Your task to perform on an android device: toggle sleep mode Image 0: 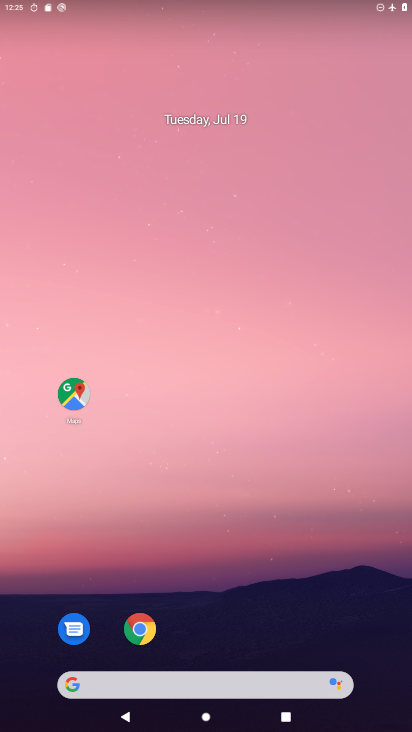
Step 0: drag from (319, 613) to (326, 97)
Your task to perform on an android device: toggle sleep mode Image 1: 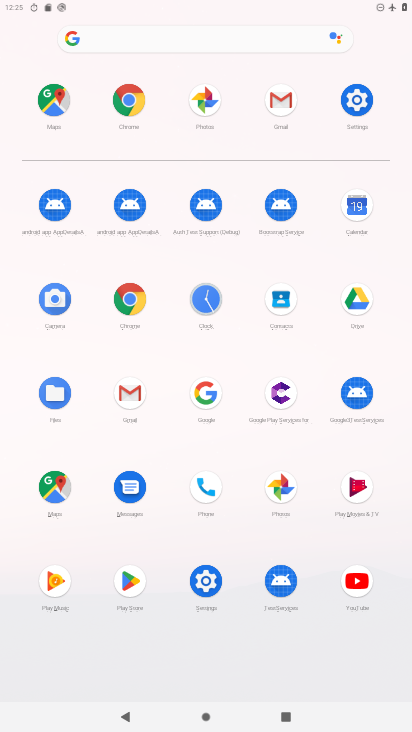
Step 1: click (352, 94)
Your task to perform on an android device: toggle sleep mode Image 2: 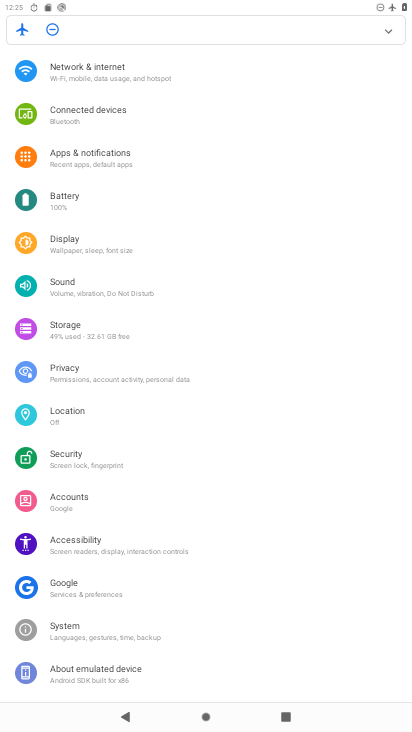
Step 2: click (59, 239)
Your task to perform on an android device: toggle sleep mode Image 3: 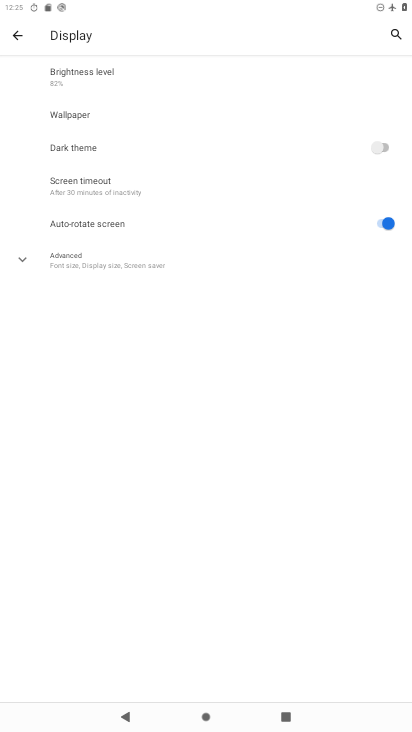
Step 3: click (108, 188)
Your task to perform on an android device: toggle sleep mode Image 4: 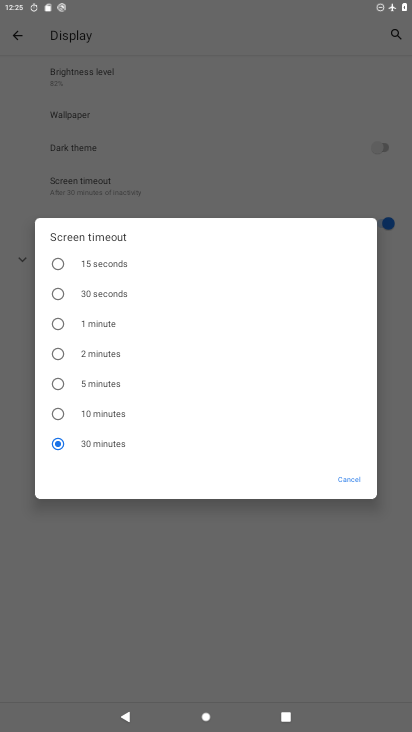
Step 4: click (87, 418)
Your task to perform on an android device: toggle sleep mode Image 5: 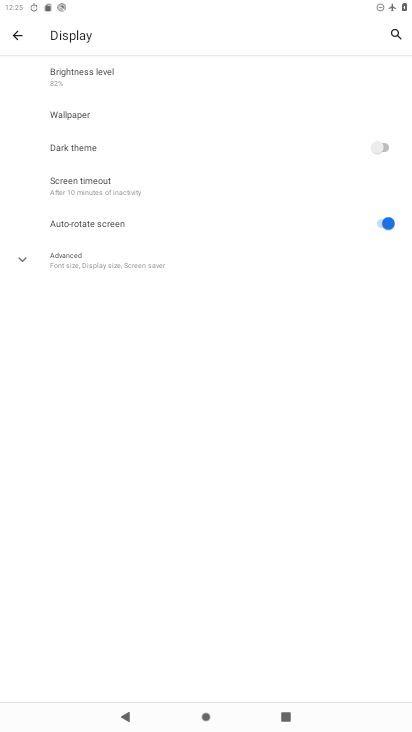
Step 5: task complete